Your task to perform on an android device: Go to sound settings Image 0: 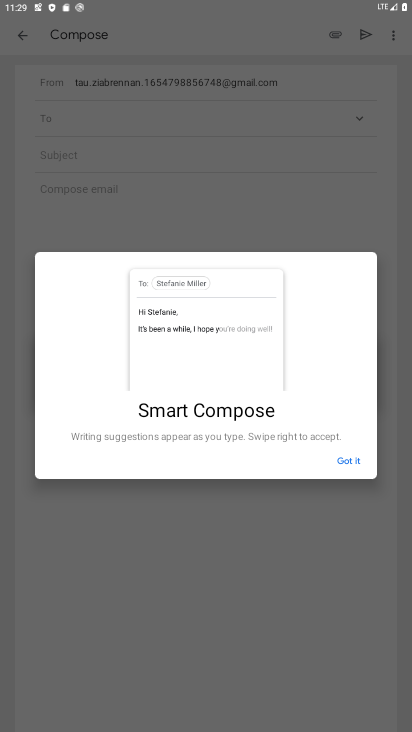
Step 0: press home button
Your task to perform on an android device: Go to sound settings Image 1: 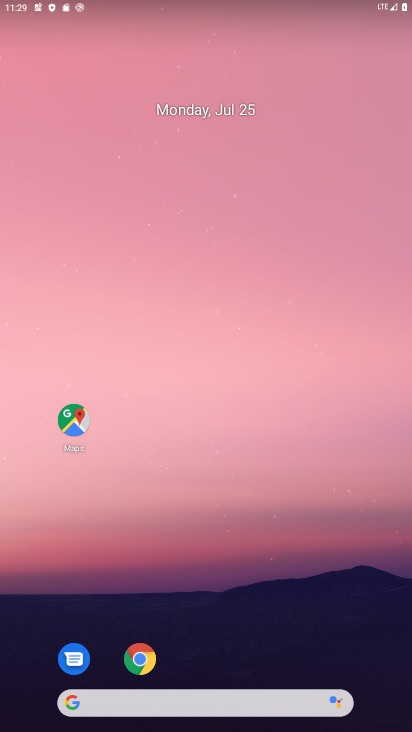
Step 1: drag from (264, 662) to (179, 237)
Your task to perform on an android device: Go to sound settings Image 2: 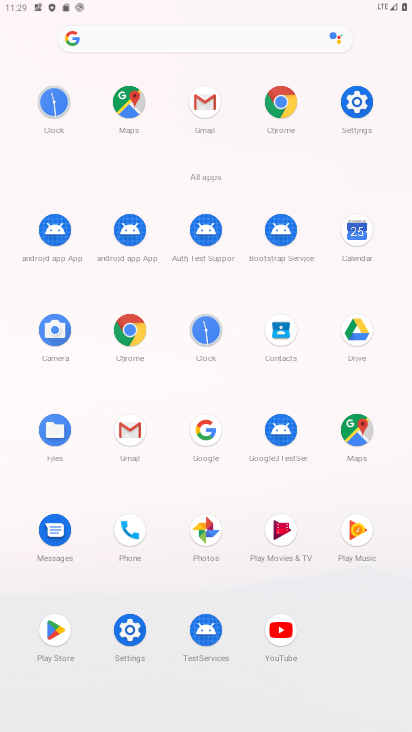
Step 2: click (352, 118)
Your task to perform on an android device: Go to sound settings Image 3: 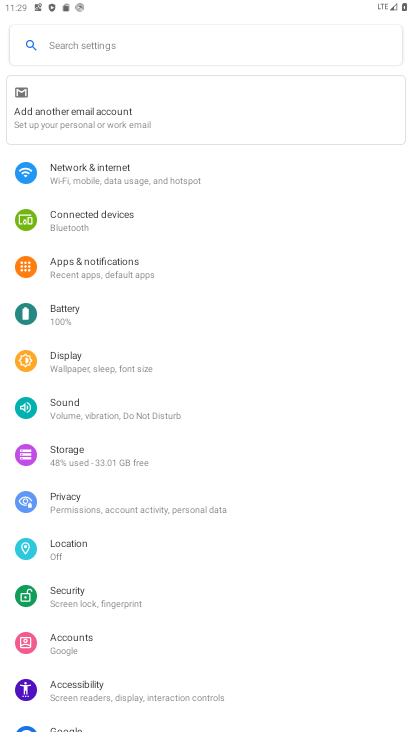
Step 3: click (198, 405)
Your task to perform on an android device: Go to sound settings Image 4: 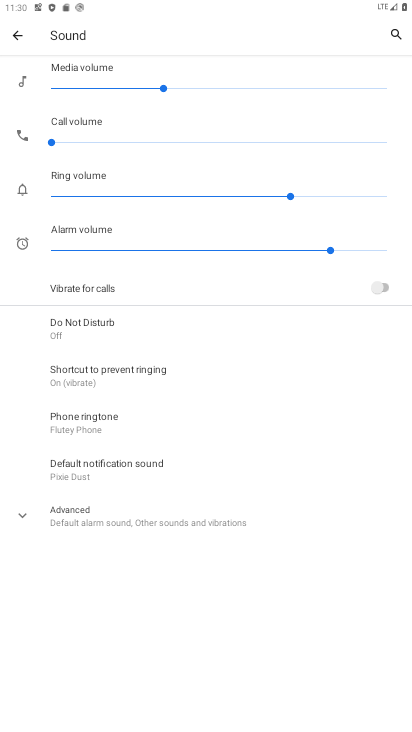
Step 4: task complete